Your task to perform on an android device: Open privacy settings Image 0: 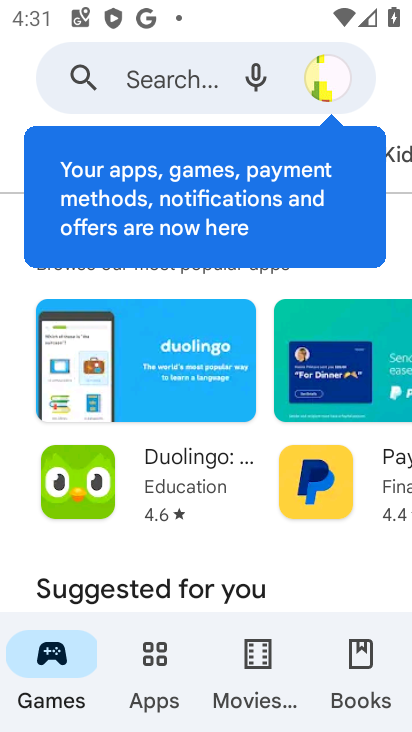
Step 0: press back button
Your task to perform on an android device: Open privacy settings Image 1: 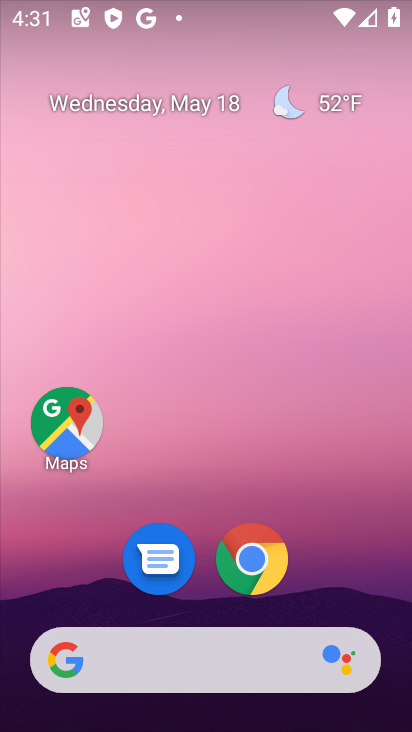
Step 1: drag from (217, 595) to (253, 28)
Your task to perform on an android device: Open privacy settings Image 2: 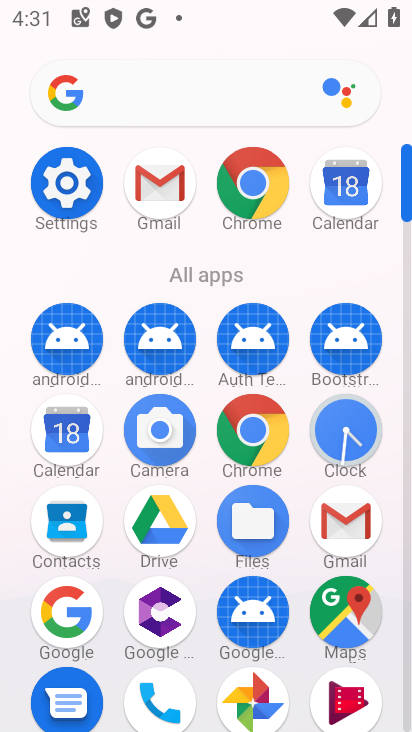
Step 2: click (69, 185)
Your task to perform on an android device: Open privacy settings Image 3: 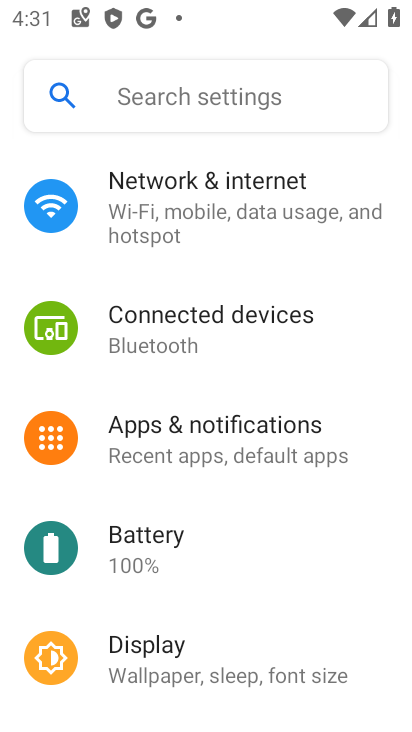
Step 3: drag from (142, 598) to (215, 84)
Your task to perform on an android device: Open privacy settings Image 4: 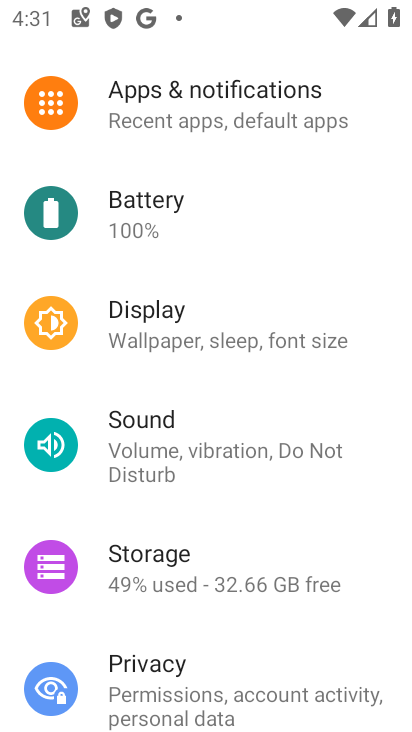
Step 4: click (149, 668)
Your task to perform on an android device: Open privacy settings Image 5: 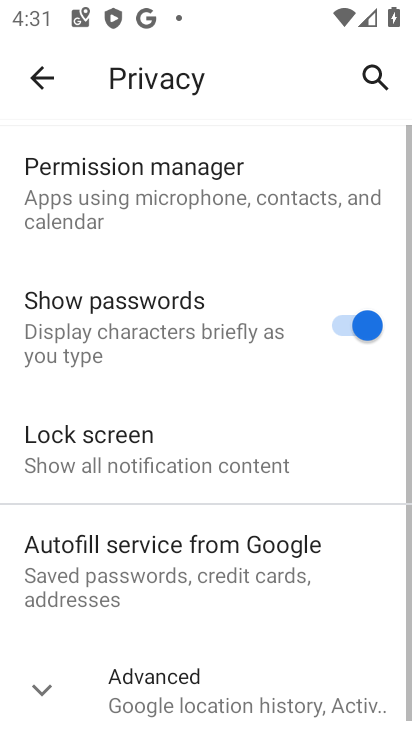
Step 5: task complete